Your task to perform on an android device: empty trash in google photos Image 0: 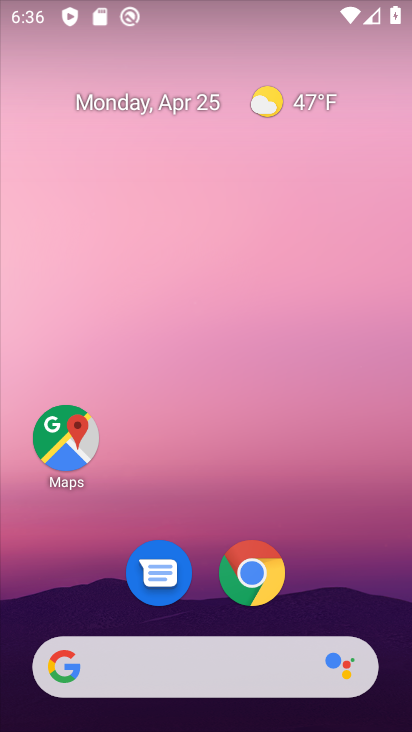
Step 0: drag from (329, 561) to (215, 118)
Your task to perform on an android device: empty trash in google photos Image 1: 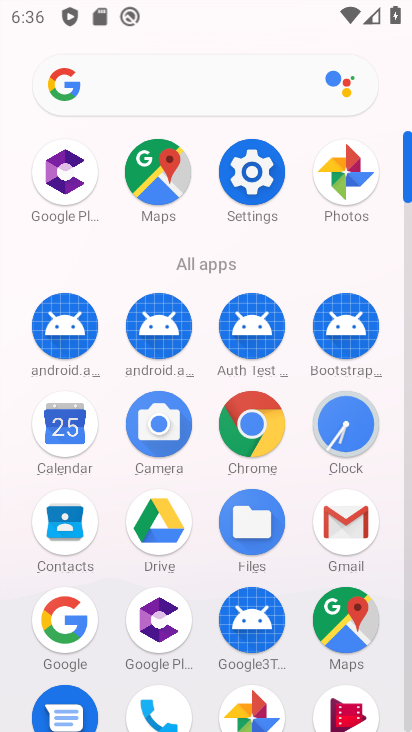
Step 1: click (340, 188)
Your task to perform on an android device: empty trash in google photos Image 2: 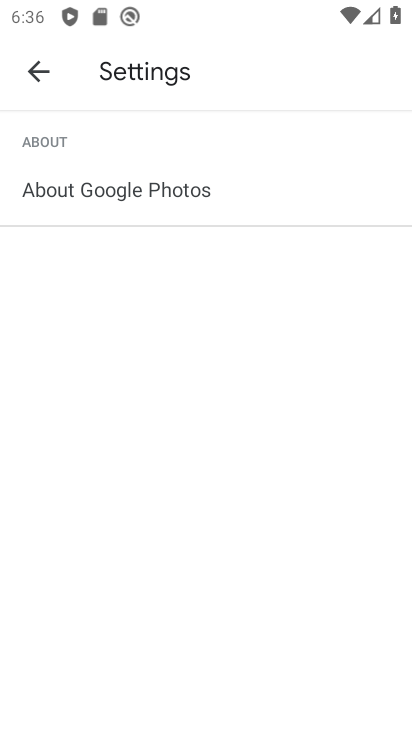
Step 2: click (35, 73)
Your task to perform on an android device: empty trash in google photos Image 3: 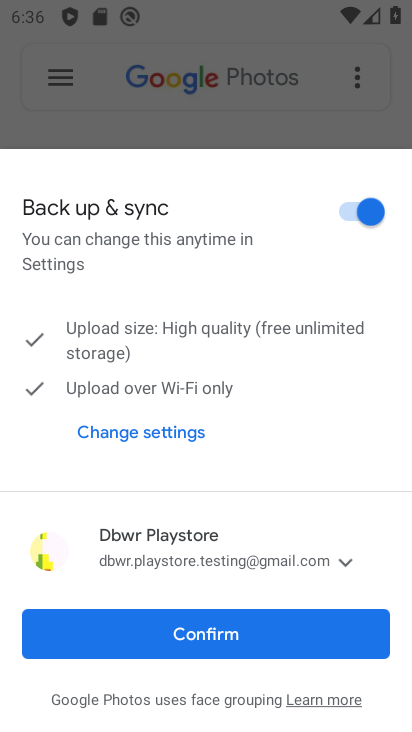
Step 3: click (288, 632)
Your task to perform on an android device: empty trash in google photos Image 4: 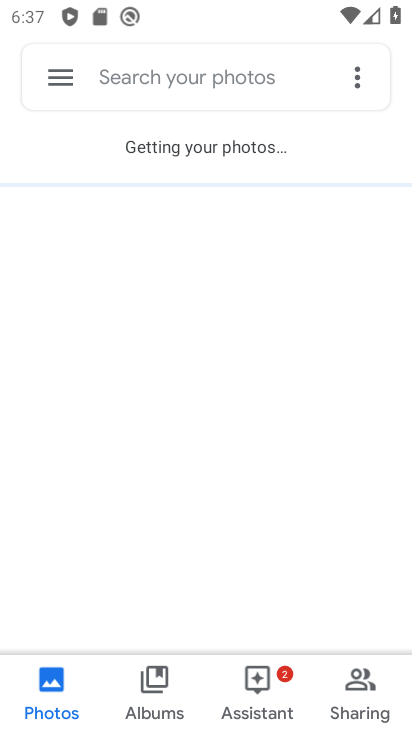
Step 4: click (59, 70)
Your task to perform on an android device: empty trash in google photos Image 5: 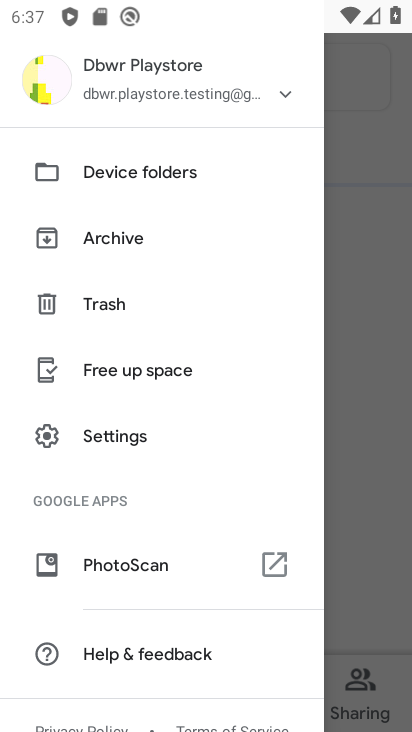
Step 5: click (123, 300)
Your task to perform on an android device: empty trash in google photos Image 6: 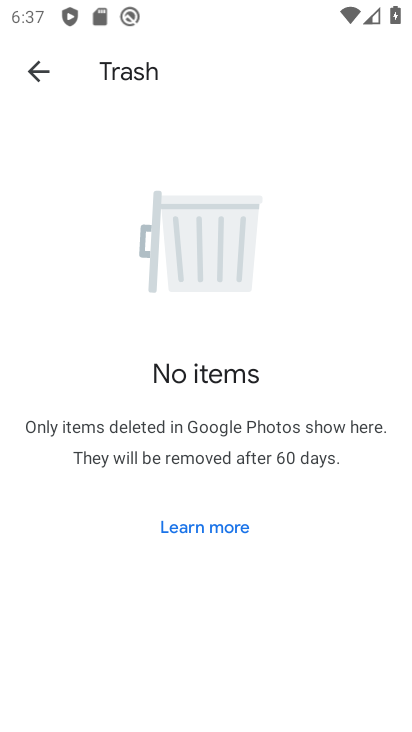
Step 6: task complete